Your task to perform on an android device: empty trash in the gmail app Image 0: 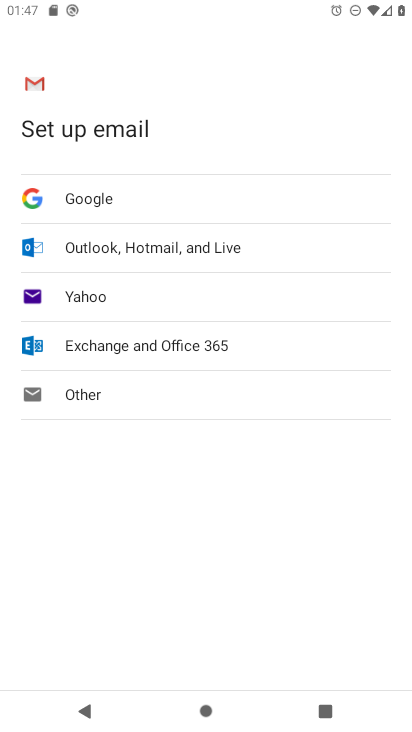
Step 0: press home button
Your task to perform on an android device: empty trash in the gmail app Image 1: 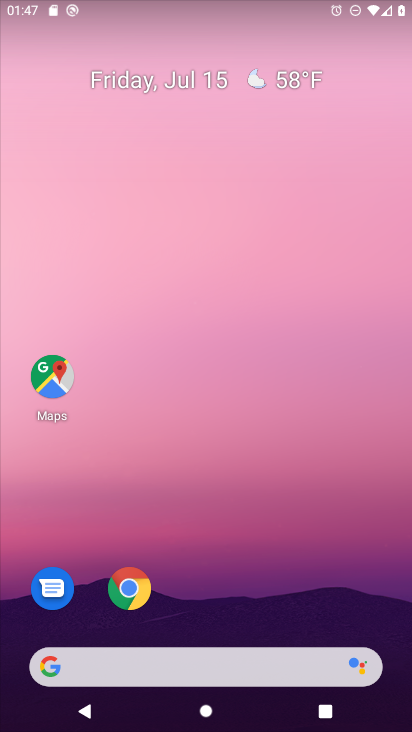
Step 1: drag from (382, 621) to (367, 118)
Your task to perform on an android device: empty trash in the gmail app Image 2: 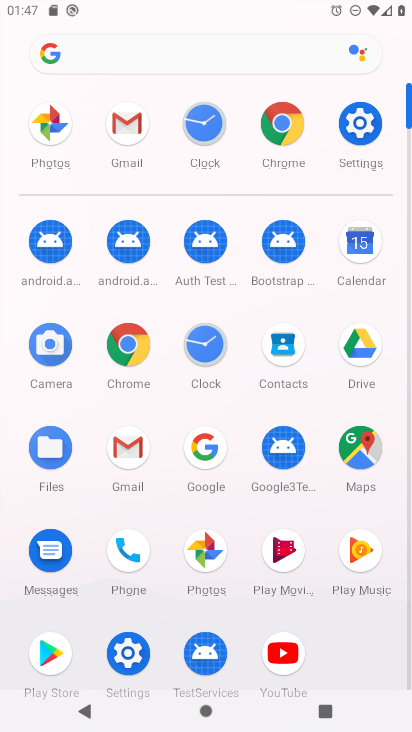
Step 2: click (127, 447)
Your task to perform on an android device: empty trash in the gmail app Image 3: 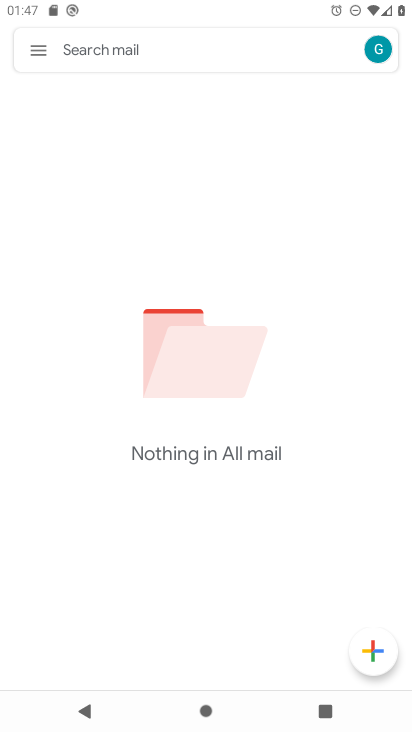
Step 3: click (34, 48)
Your task to perform on an android device: empty trash in the gmail app Image 4: 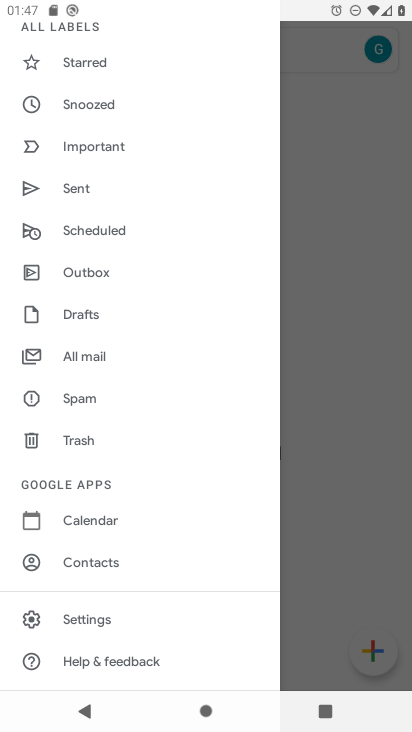
Step 4: click (79, 438)
Your task to perform on an android device: empty trash in the gmail app Image 5: 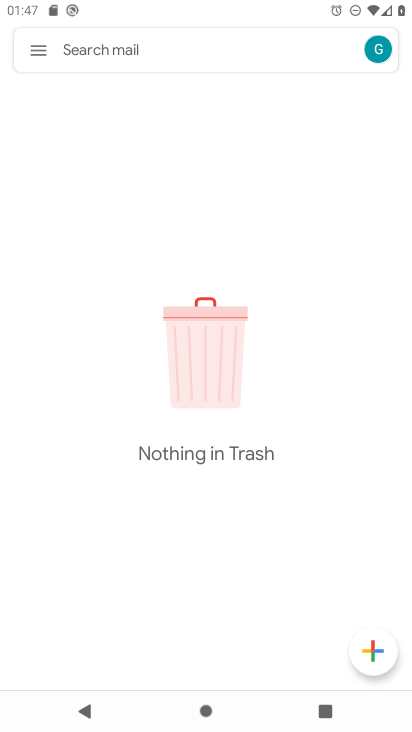
Step 5: task complete